Your task to perform on an android device: What's the weather today? Image 0: 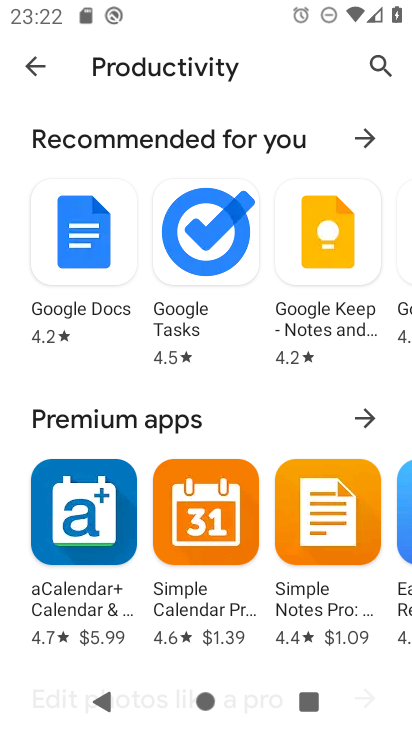
Step 0: press home button
Your task to perform on an android device: What's the weather today? Image 1: 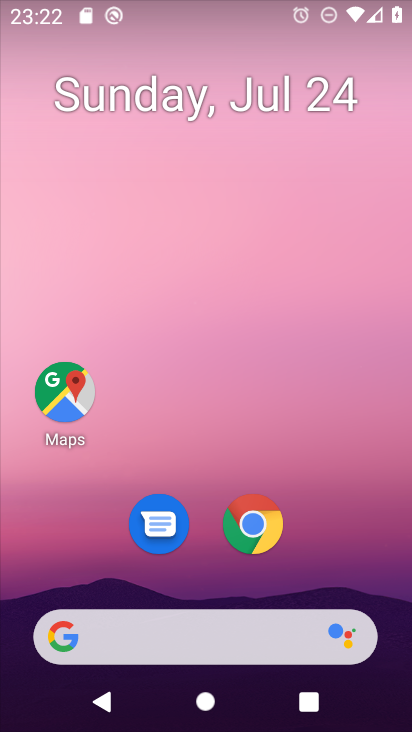
Step 1: click (128, 635)
Your task to perform on an android device: What's the weather today? Image 2: 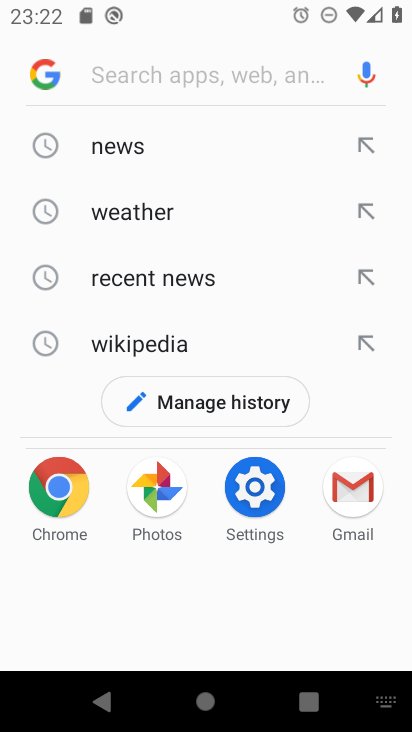
Step 2: click (146, 191)
Your task to perform on an android device: What's the weather today? Image 3: 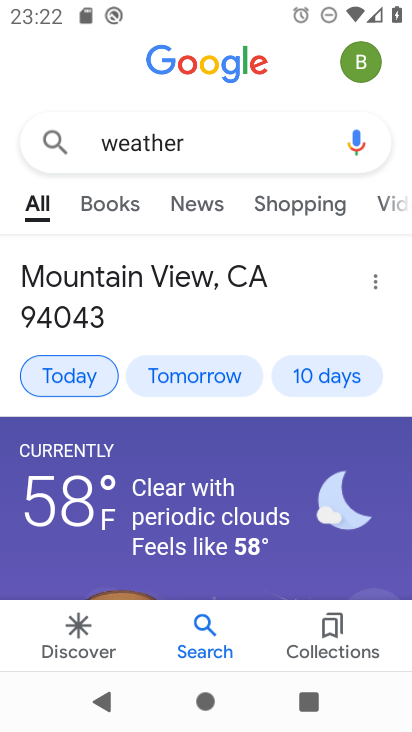
Step 3: task complete